Your task to perform on an android device: Go to accessibility settings Image 0: 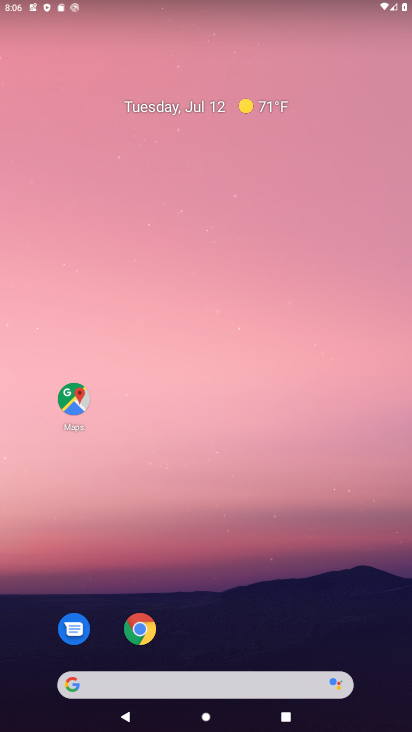
Step 0: drag from (373, 707) to (319, 82)
Your task to perform on an android device: Go to accessibility settings Image 1: 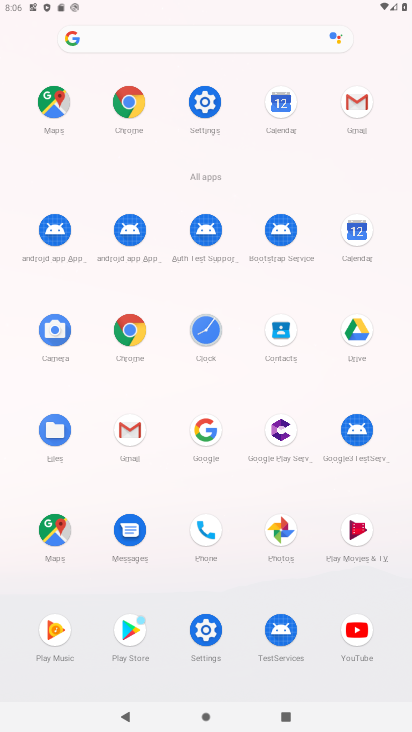
Step 1: click (213, 103)
Your task to perform on an android device: Go to accessibility settings Image 2: 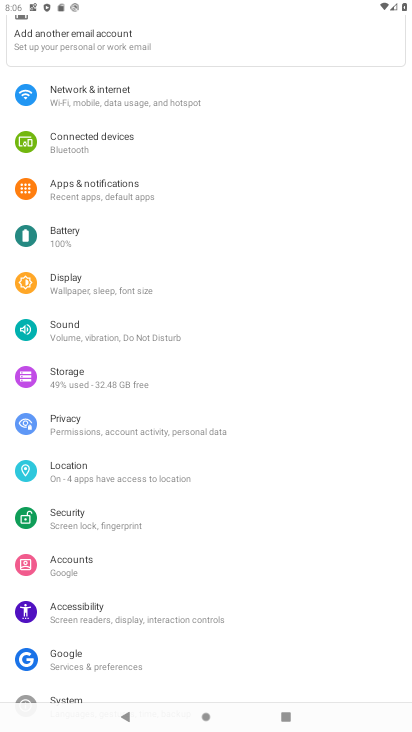
Step 2: click (78, 612)
Your task to perform on an android device: Go to accessibility settings Image 3: 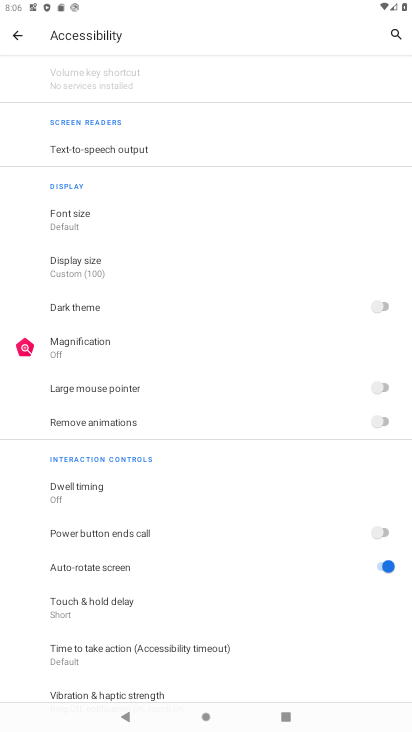
Step 3: task complete